Your task to perform on an android device: turn off location history Image 0: 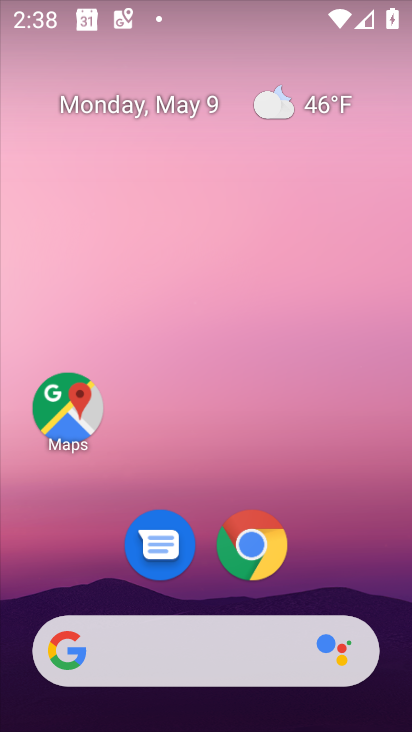
Step 0: drag from (207, 594) to (230, 305)
Your task to perform on an android device: turn off location history Image 1: 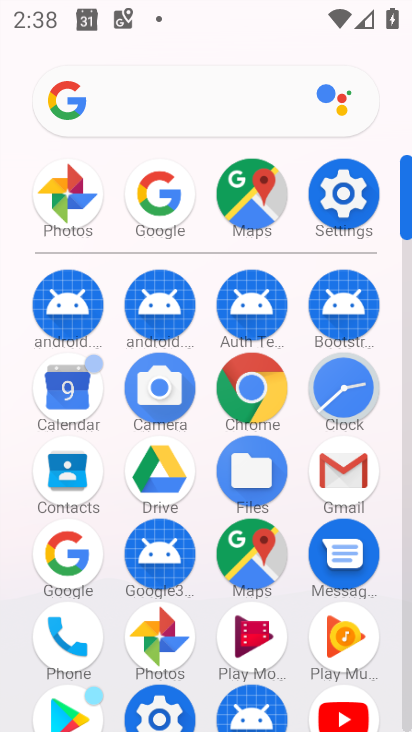
Step 1: click (352, 166)
Your task to perform on an android device: turn off location history Image 2: 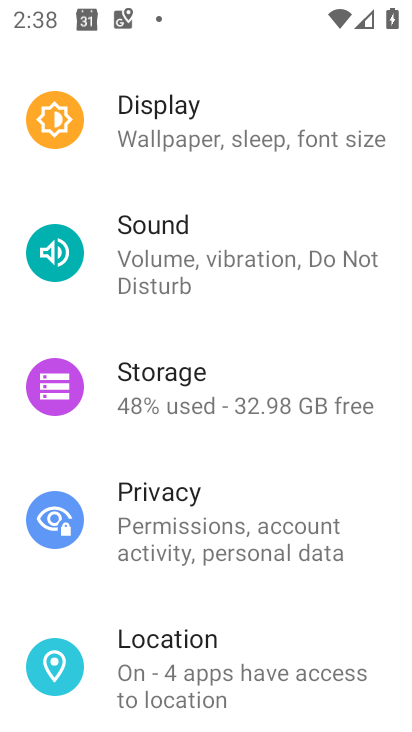
Step 2: click (210, 652)
Your task to perform on an android device: turn off location history Image 3: 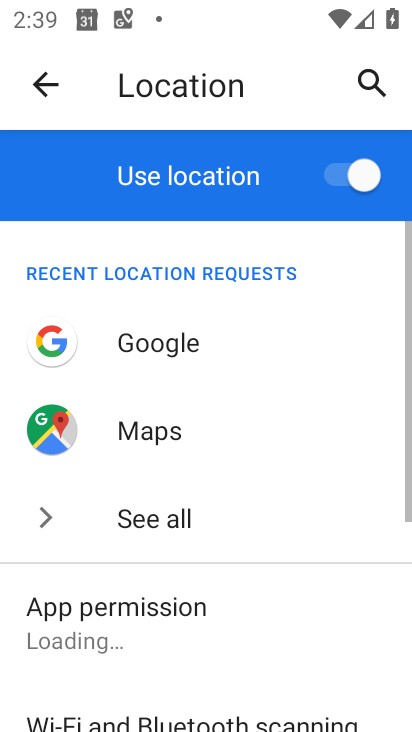
Step 3: drag from (252, 620) to (283, 344)
Your task to perform on an android device: turn off location history Image 4: 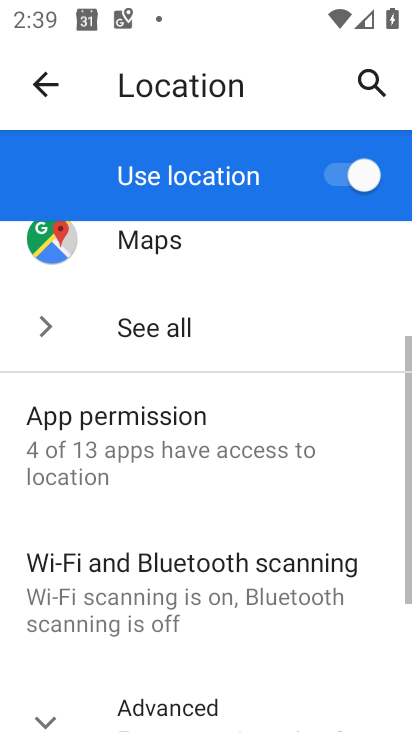
Step 4: drag from (152, 645) to (207, 431)
Your task to perform on an android device: turn off location history Image 5: 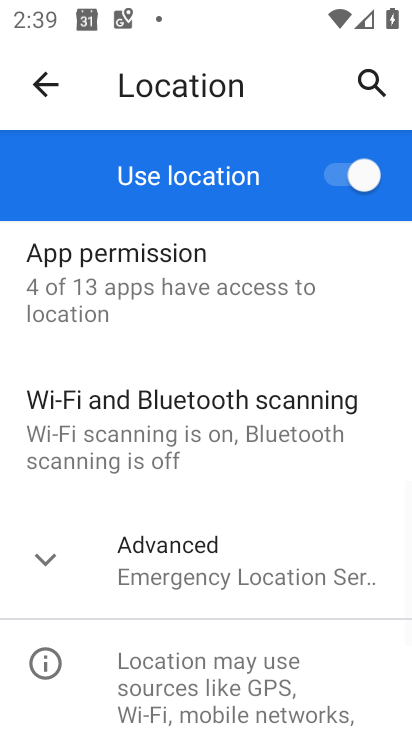
Step 5: click (171, 565)
Your task to perform on an android device: turn off location history Image 6: 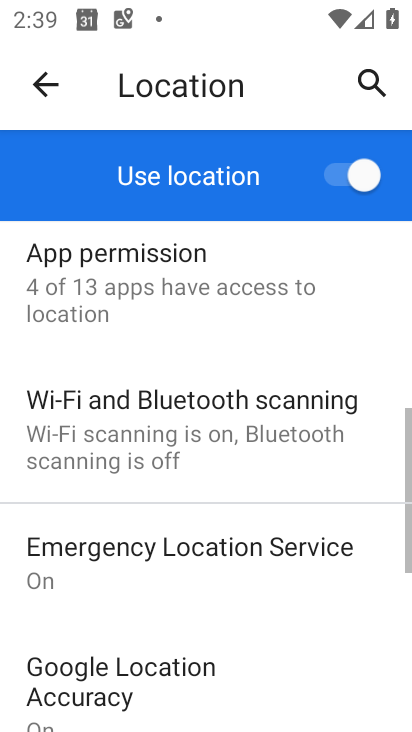
Step 6: drag from (198, 613) to (248, 396)
Your task to perform on an android device: turn off location history Image 7: 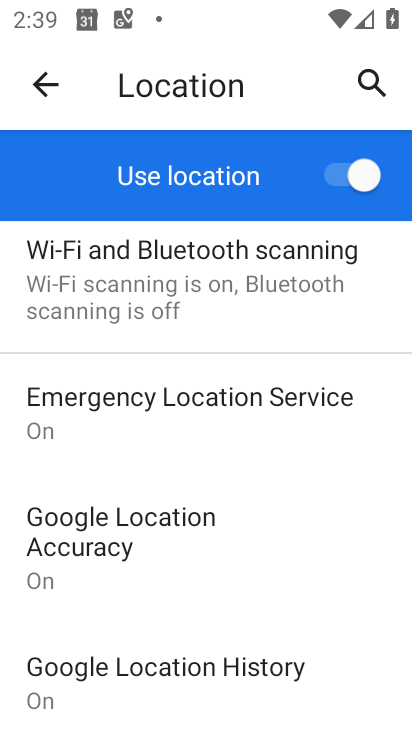
Step 7: drag from (202, 572) to (240, 423)
Your task to perform on an android device: turn off location history Image 8: 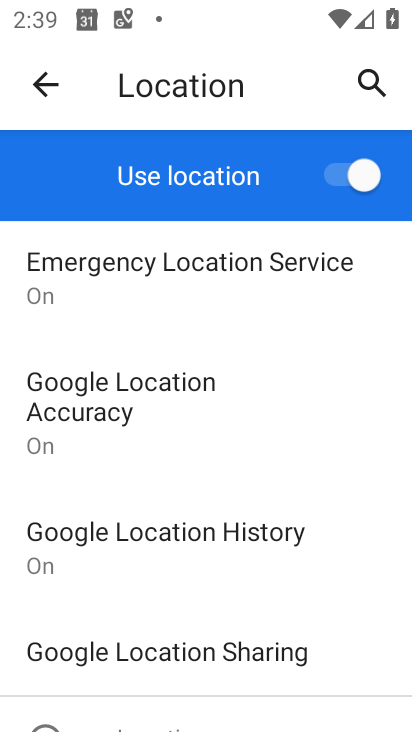
Step 8: click (219, 536)
Your task to perform on an android device: turn off location history Image 9: 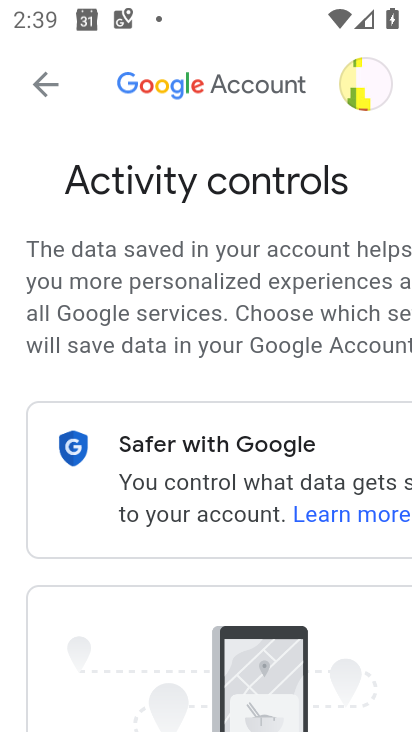
Step 9: task complete